Your task to perform on an android device: Open Amazon Image 0: 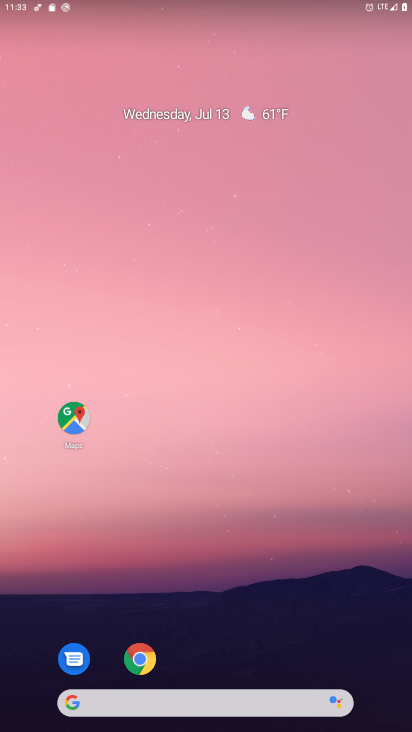
Step 0: press home button
Your task to perform on an android device: Open Amazon Image 1: 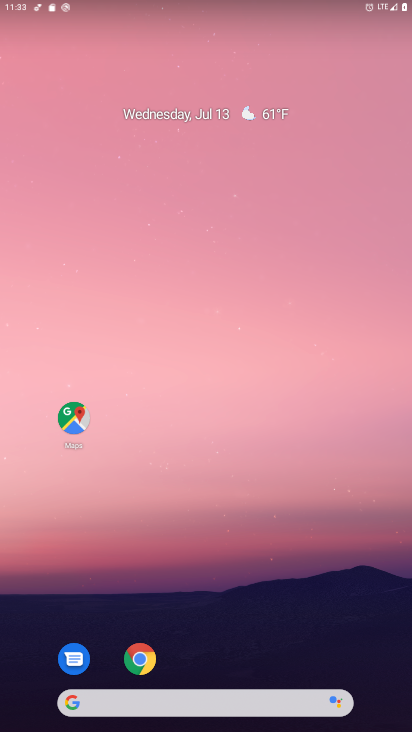
Step 1: drag from (210, 675) to (211, 42)
Your task to perform on an android device: Open Amazon Image 2: 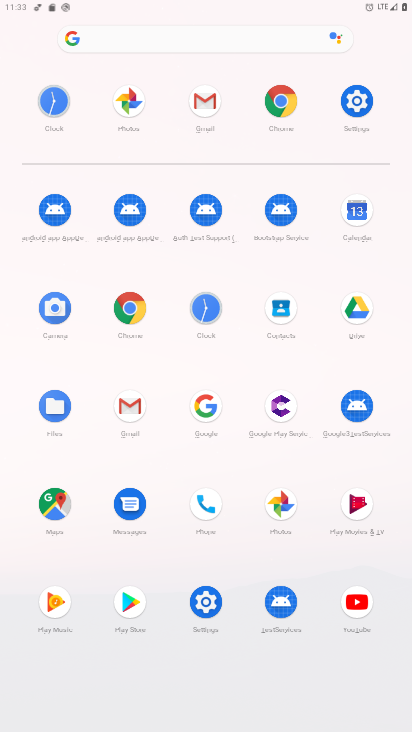
Step 2: click (278, 97)
Your task to perform on an android device: Open Amazon Image 3: 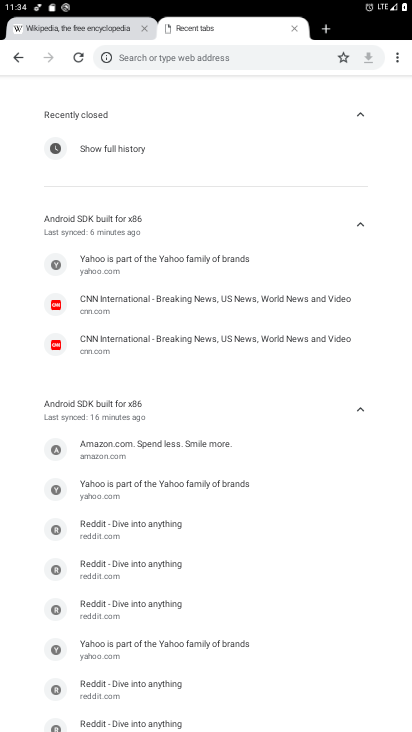
Step 3: click (322, 29)
Your task to perform on an android device: Open Amazon Image 4: 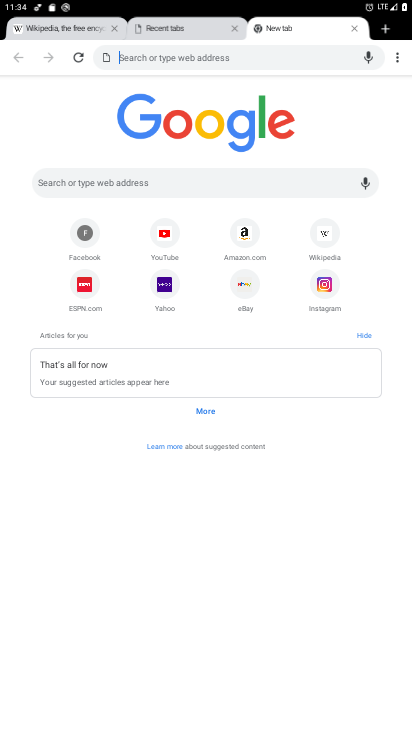
Step 4: click (166, 51)
Your task to perform on an android device: Open Amazon Image 5: 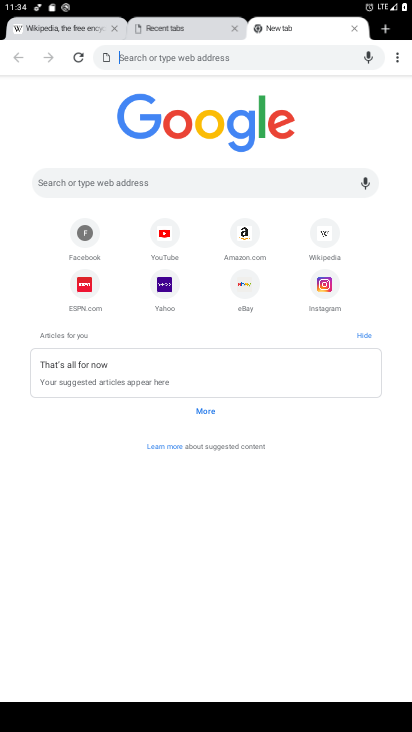
Step 5: type "amazon"
Your task to perform on an android device: Open Amazon Image 6: 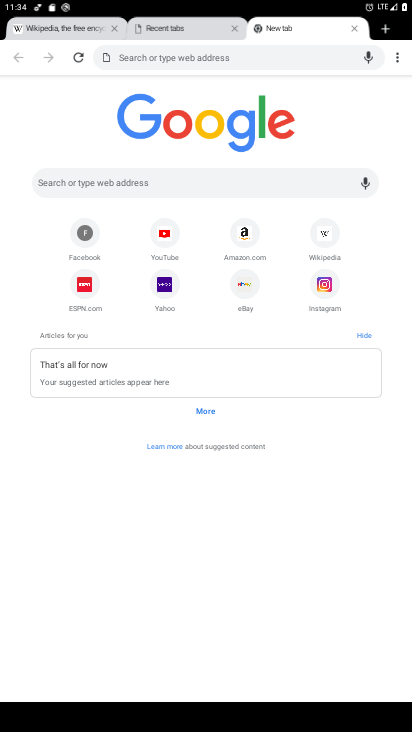
Step 6: click (237, 227)
Your task to perform on an android device: Open Amazon Image 7: 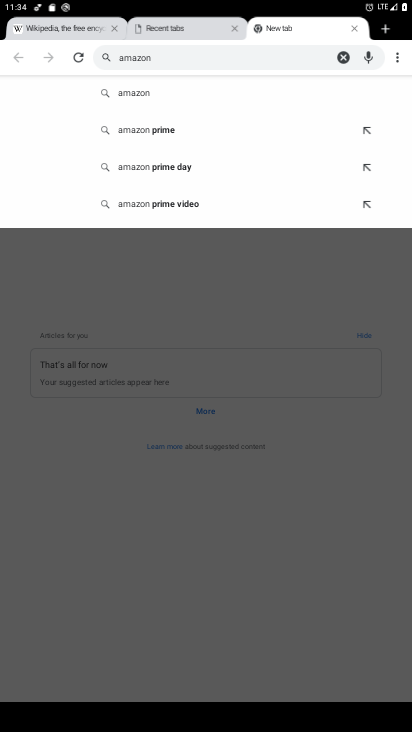
Step 7: click (163, 88)
Your task to perform on an android device: Open Amazon Image 8: 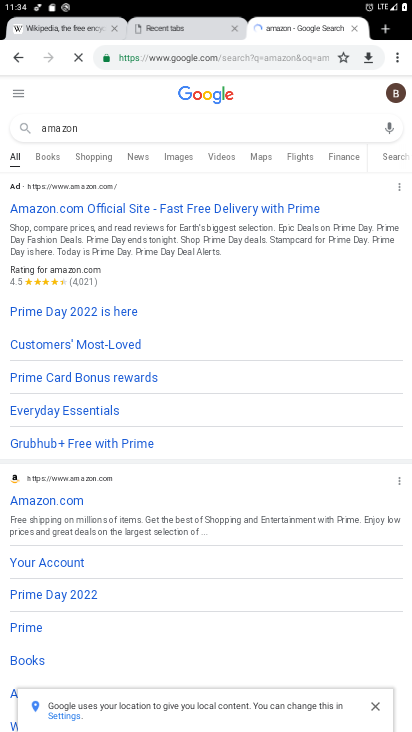
Step 8: click (93, 208)
Your task to perform on an android device: Open Amazon Image 9: 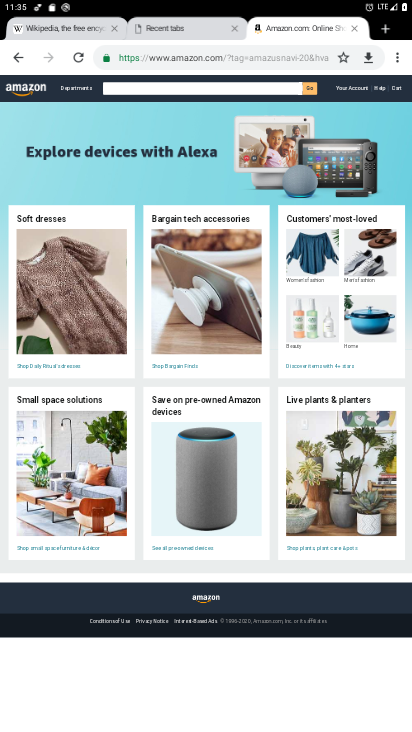
Step 9: task complete